Your task to perform on an android device: Do I have any events tomorrow? Image 0: 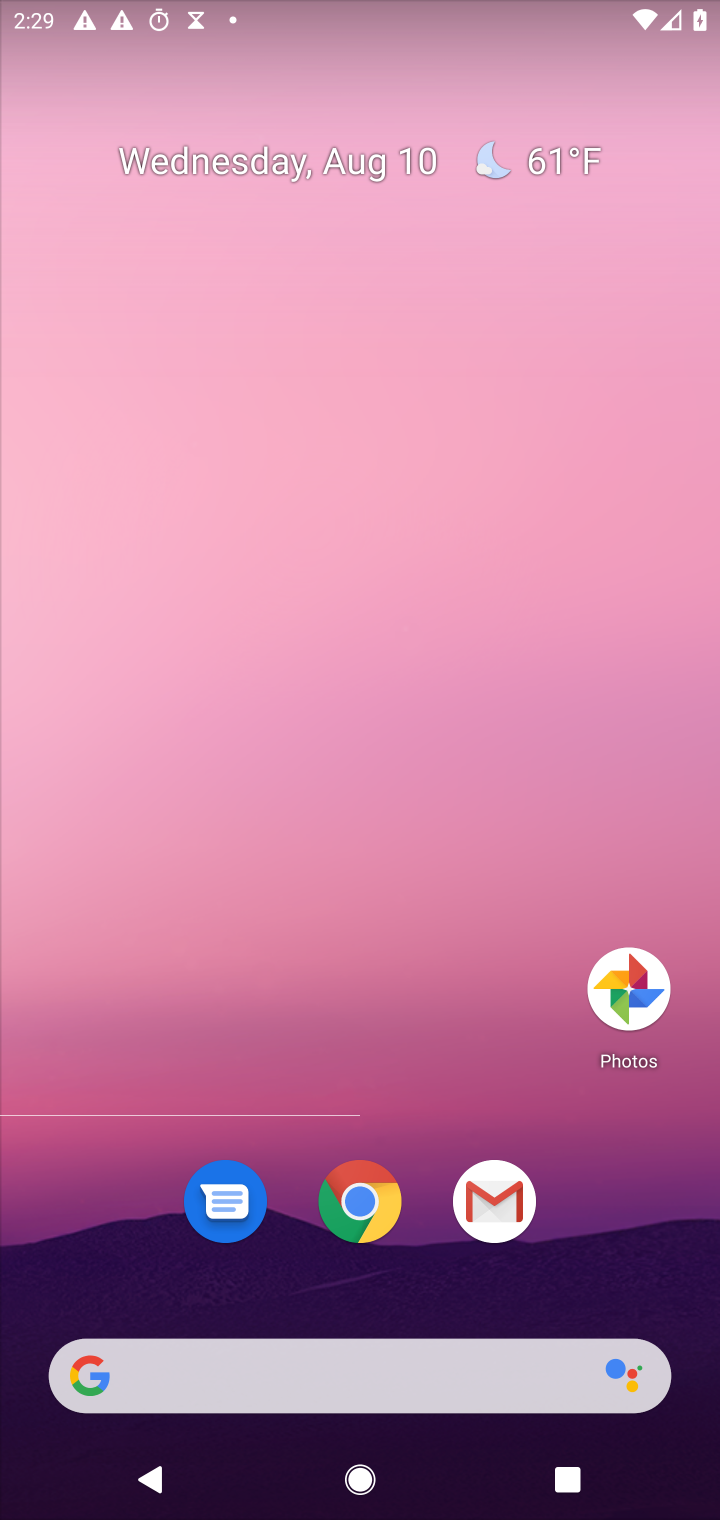
Step 0: press home button
Your task to perform on an android device: Do I have any events tomorrow? Image 1: 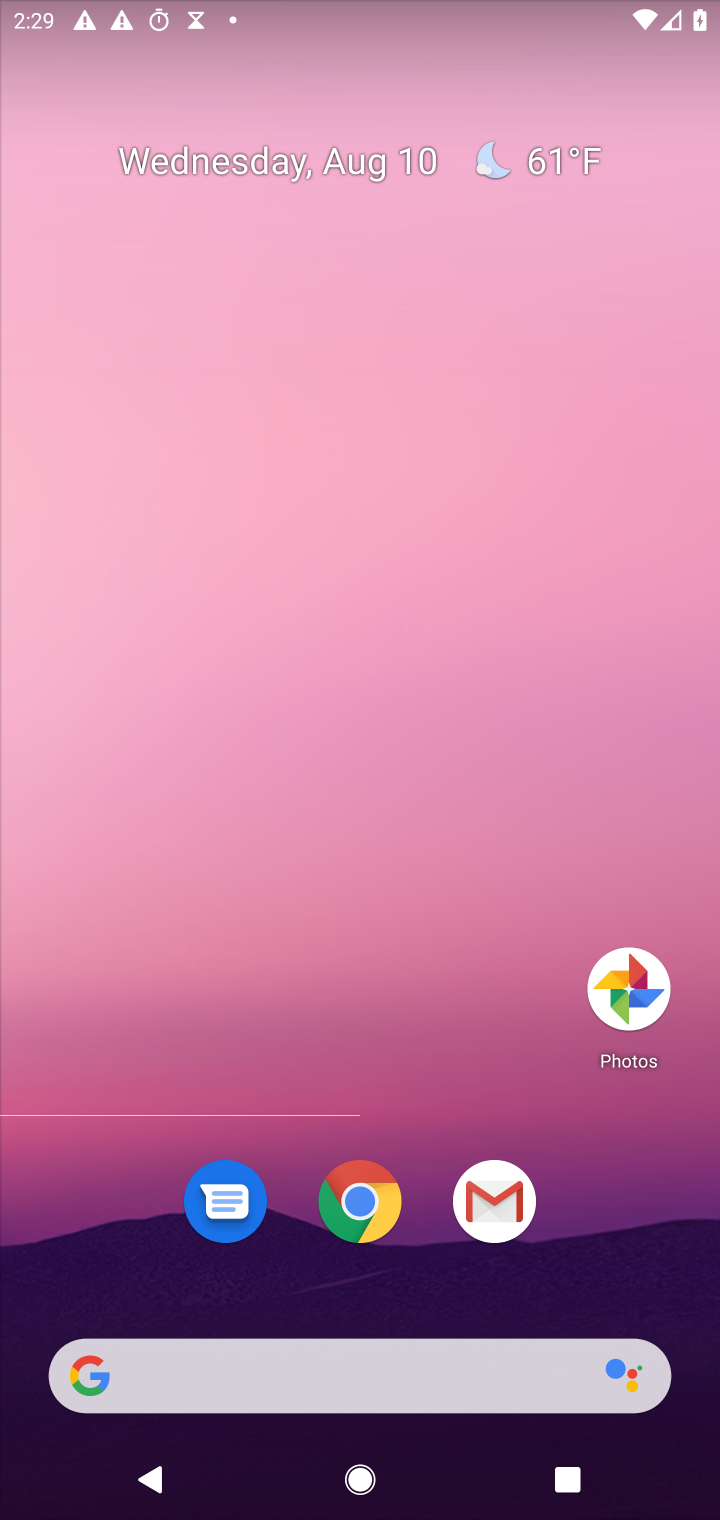
Step 1: drag from (424, 1286) to (435, 400)
Your task to perform on an android device: Do I have any events tomorrow? Image 2: 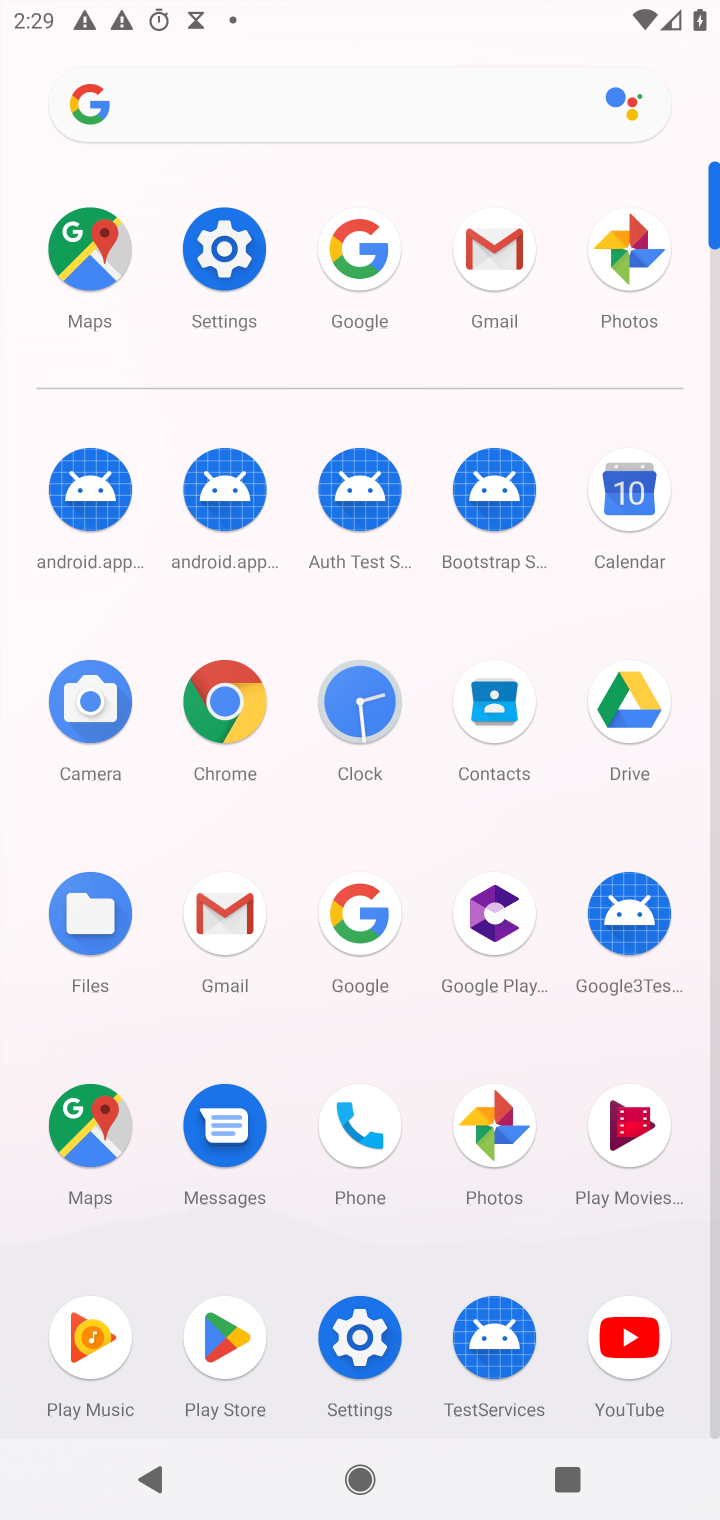
Step 2: click (636, 507)
Your task to perform on an android device: Do I have any events tomorrow? Image 3: 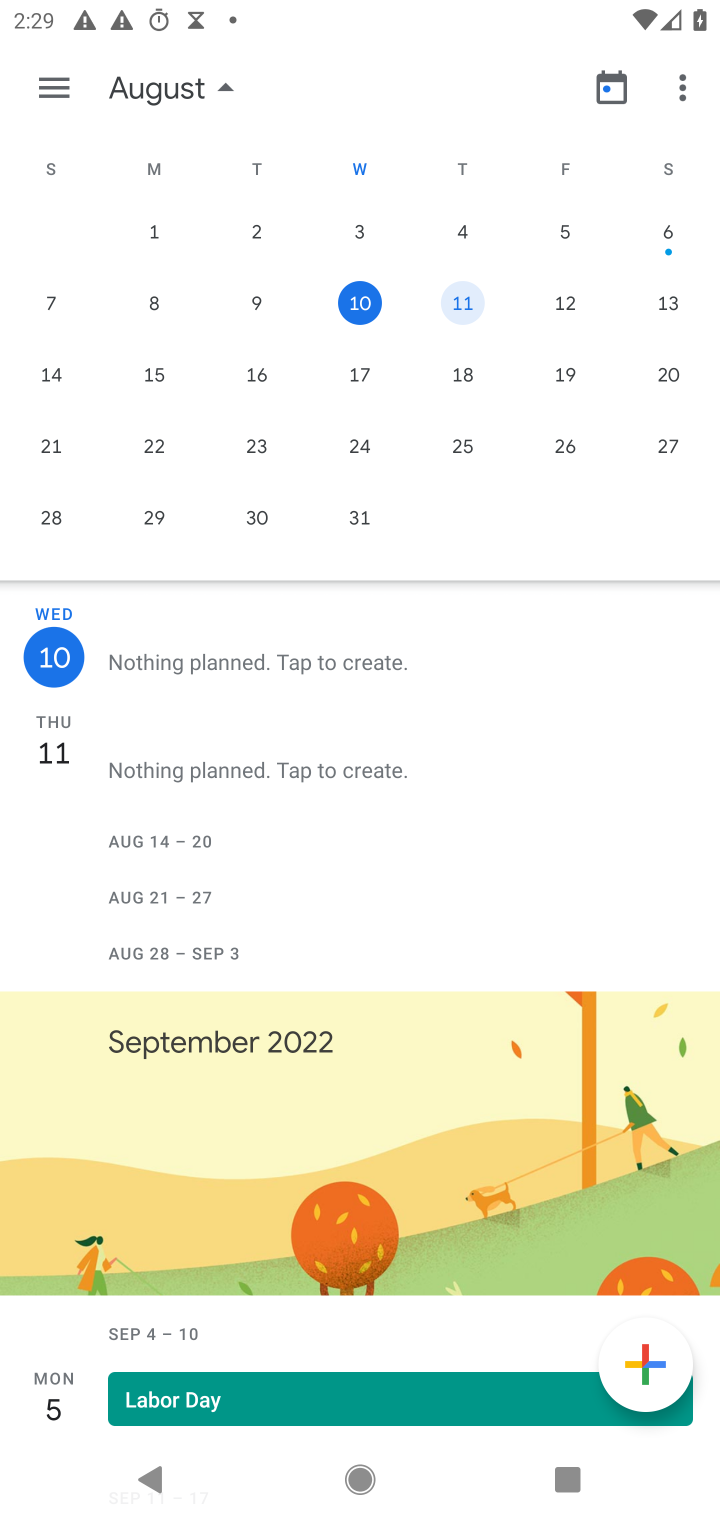
Step 3: click (455, 299)
Your task to perform on an android device: Do I have any events tomorrow? Image 4: 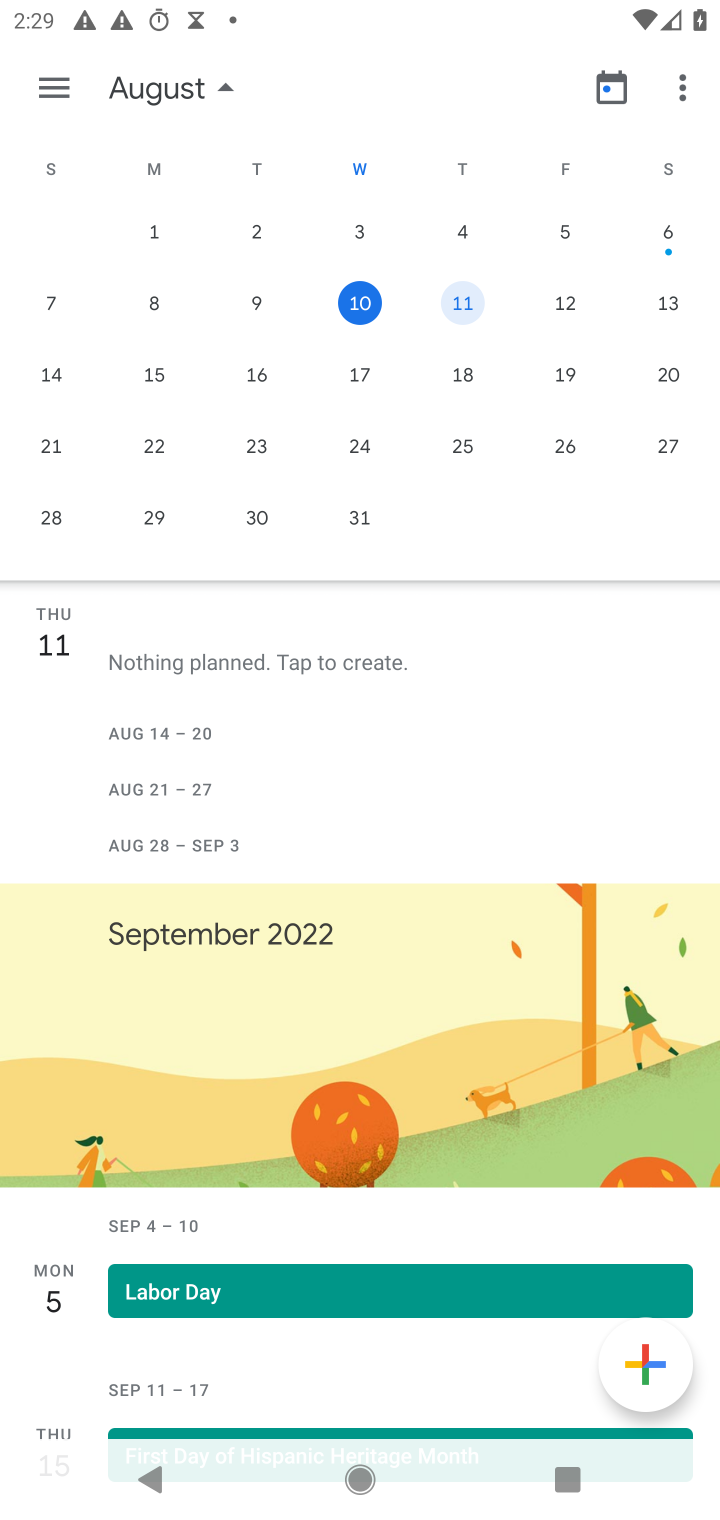
Step 4: task complete